Your task to perform on an android device: Open the calendar app, open the side menu, and click the "Day" option Image 0: 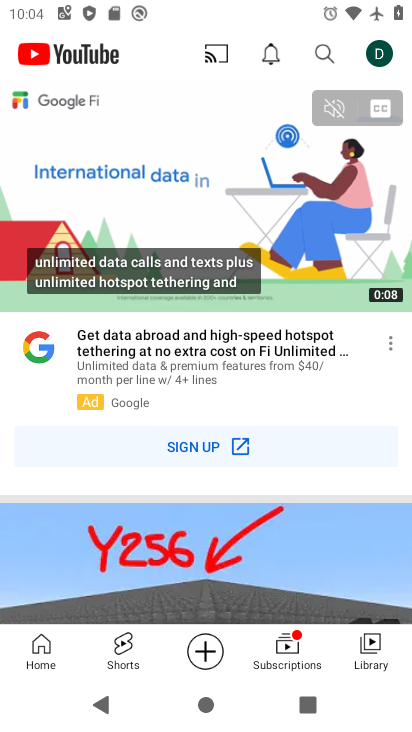
Step 0: press home button
Your task to perform on an android device: Open the calendar app, open the side menu, and click the "Day" option Image 1: 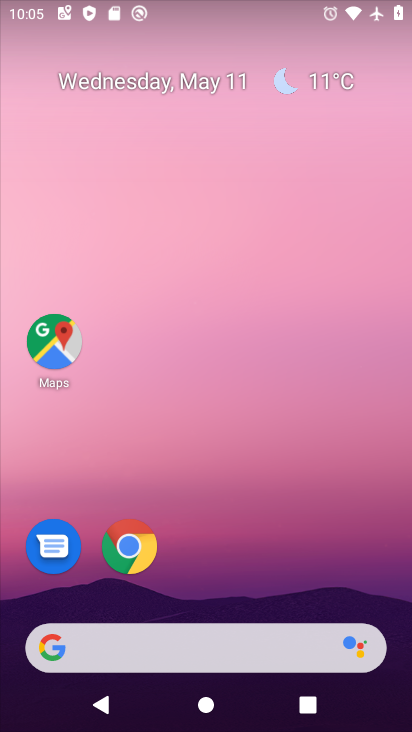
Step 1: drag from (409, 626) to (296, 145)
Your task to perform on an android device: Open the calendar app, open the side menu, and click the "Day" option Image 2: 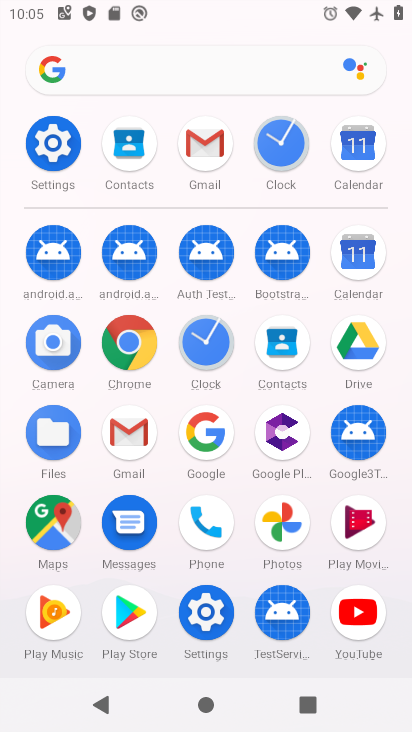
Step 2: click (353, 255)
Your task to perform on an android device: Open the calendar app, open the side menu, and click the "Day" option Image 3: 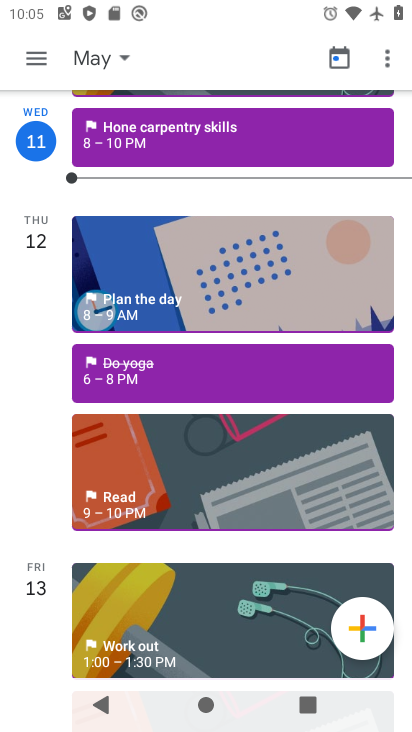
Step 3: click (43, 59)
Your task to perform on an android device: Open the calendar app, open the side menu, and click the "Day" option Image 4: 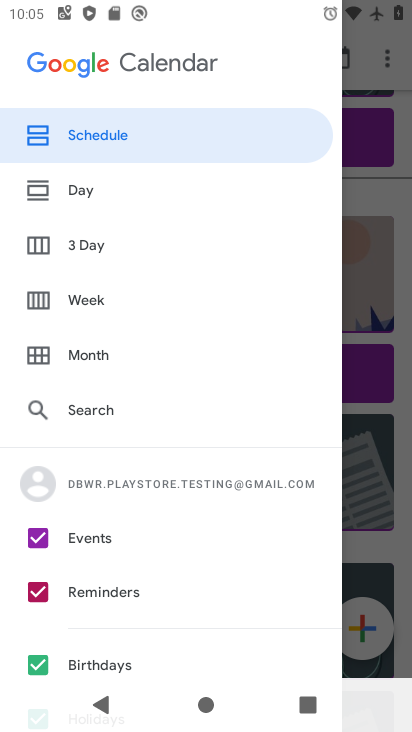
Step 4: click (80, 195)
Your task to perform on an android device: Open the calendar app, open the side menu, and click the "Day" option Image 5: 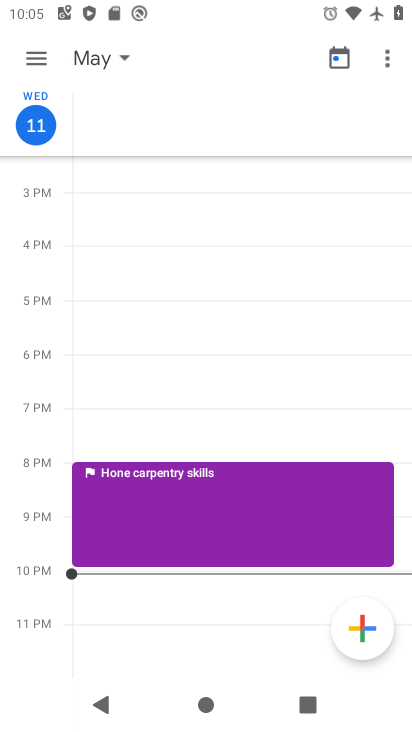
Step 5: task complete